Your task to perform on an android device: Show me popular videos on Youtube Image 0: 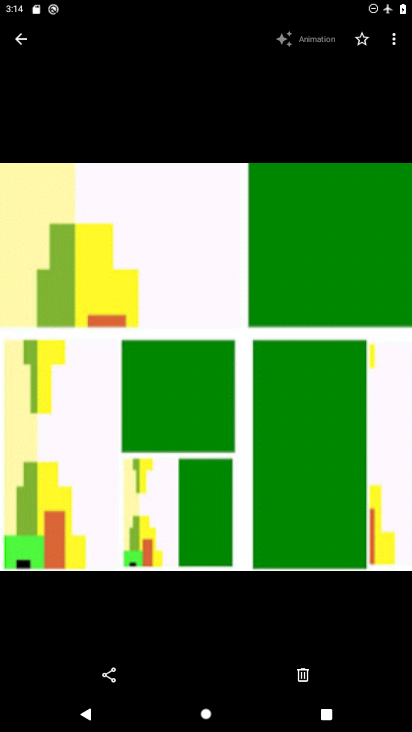
Step 0: press home button
Your task to perform on an android device: Show me popular videos on Youtube Image 1: 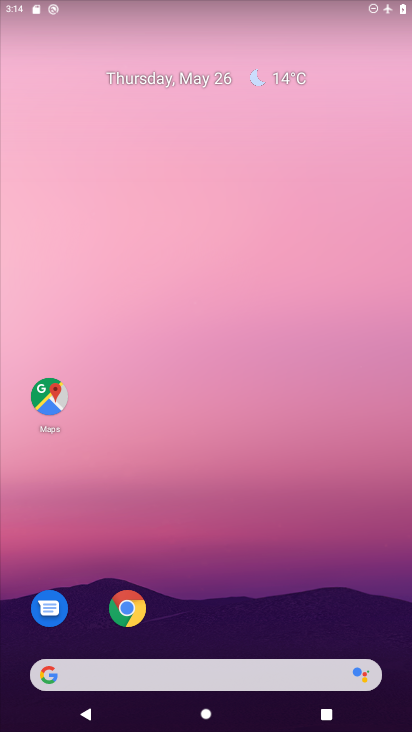
Step 1: drag from (281, 560) to (269, 51)
Your task to perform on an android device: Show me popular videos on Youtube Image 2: 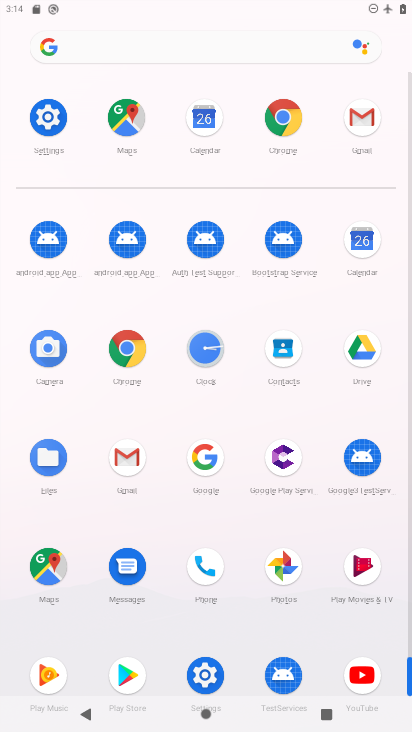
Step 2: click (358, 671)
Your task to perform on an android device: Show me popular videos on Youtube Image 3: 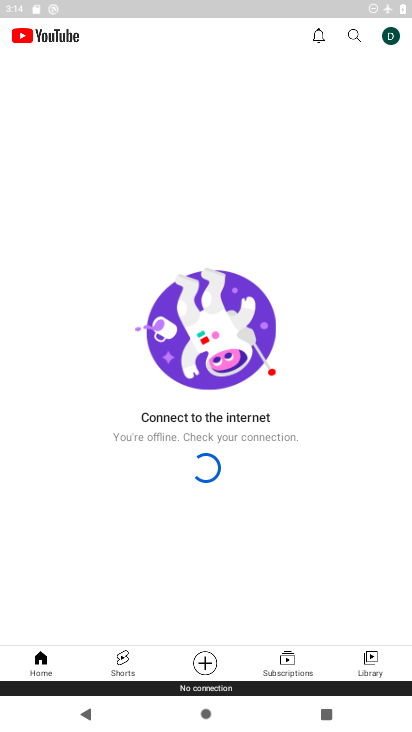
Step 3: click (349, 28)
Your task to perform on an android device: Show me popular videos on Youtube Image 4: 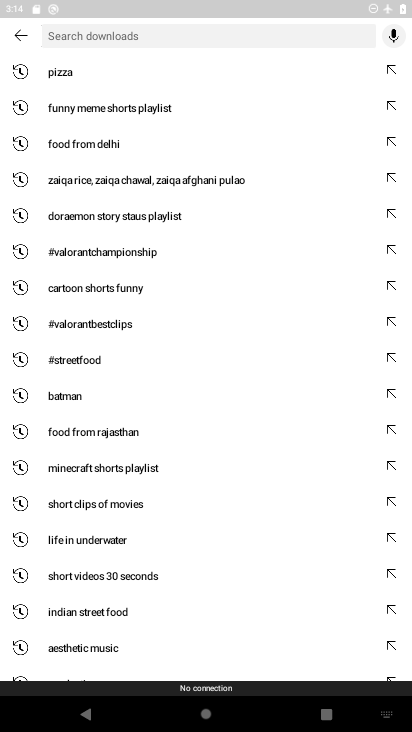
Step 4: type "popular "
Your task to perform on an android device: Show me popular videos on Youtube Image 5: 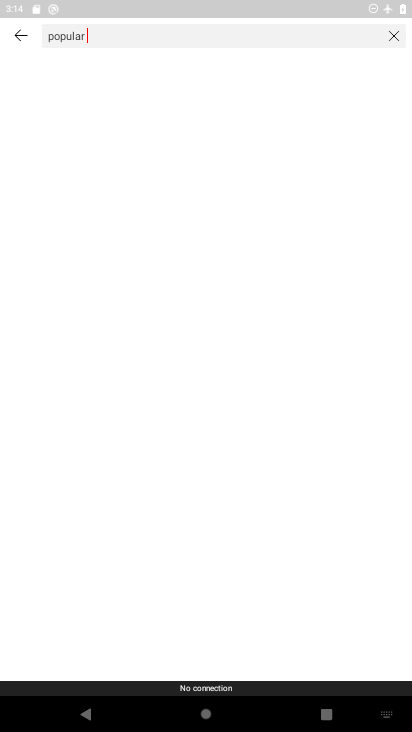
Step 5: press enter
Your task to perform on an android device: Show me popular videos on Youtube Image 6: 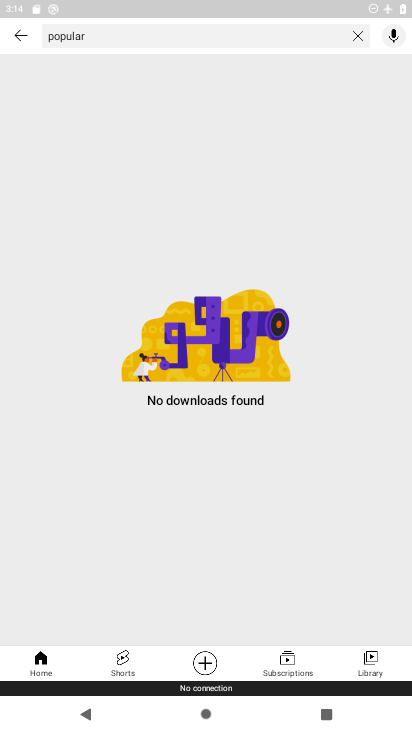
Step 6: task complete